Your task to perform on an android device: set an alarm Image 0: 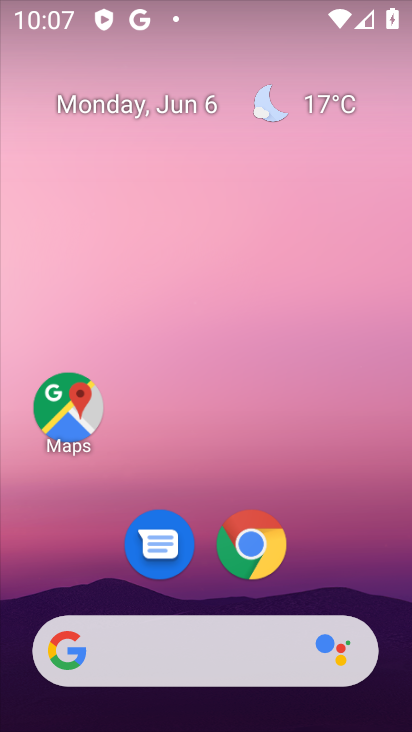
Step 0: drag from (100, 549) to (195, 115)
Your task to perform on an android device: set an alarm Image 1: 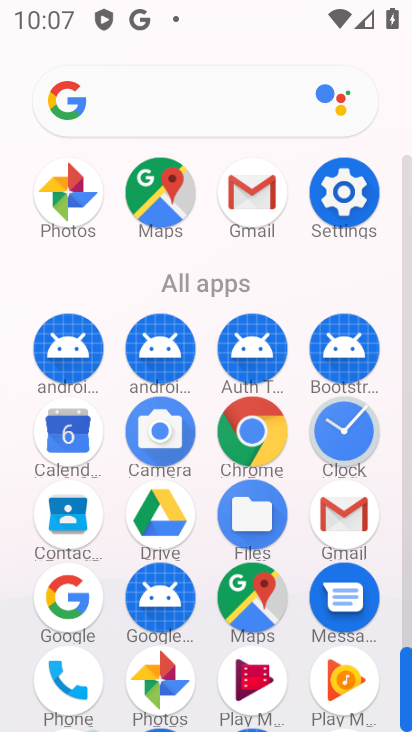
Step 1: click (347, 438)
Your task to perform on an android device: set an alarm Image 2: 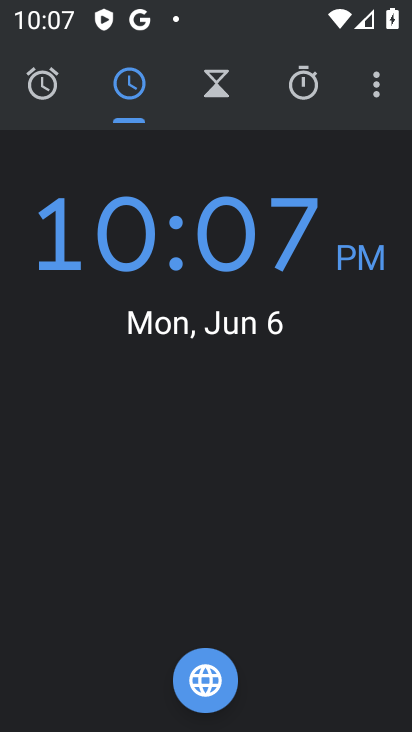
Step 2: click (46, 98)
Your task to perform on an android device: set an alarm Image 3: 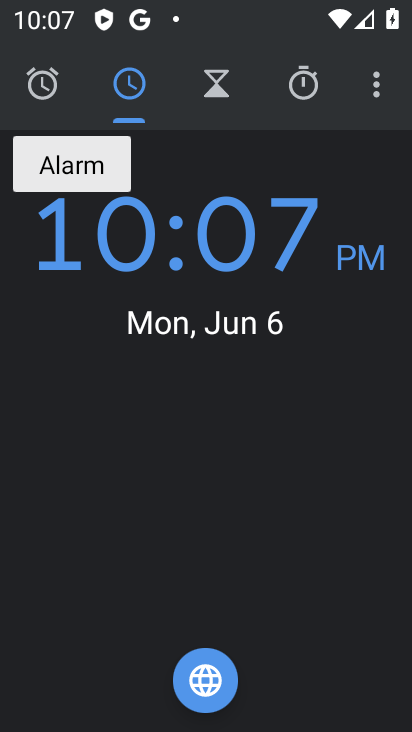
Step 3: click (46, 97)
Your task to perform on an android device: set an alarm Image 4: 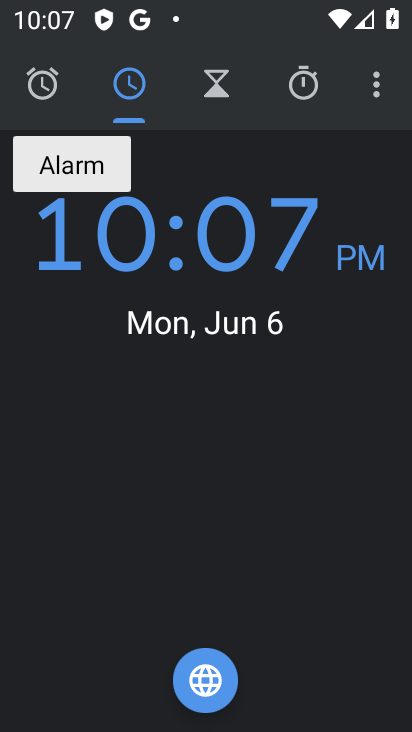
Step 4: click (50, 86)
Your task to perform on an android device: set an alarm Image 5: 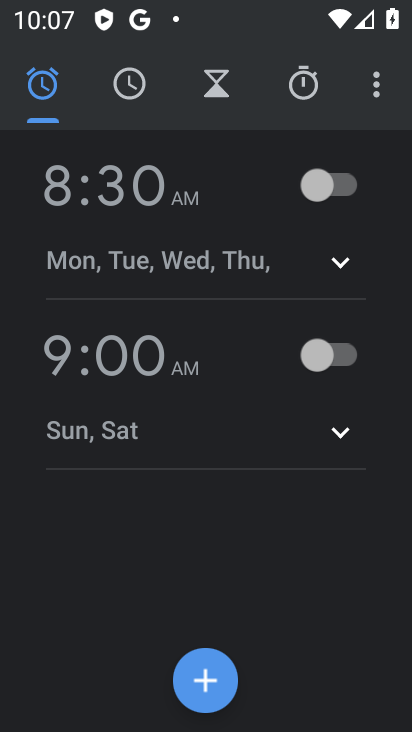
Step 5: click (219, 674)
Your task to perform on an android device: set an alarm Image 6: 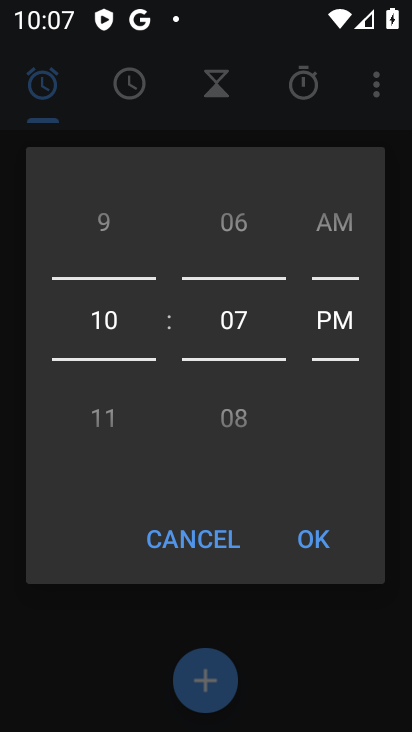
Step 6: drag from (96, 398) to (121, 229)
Your task to perform on an android device: set an alarm Image 7: 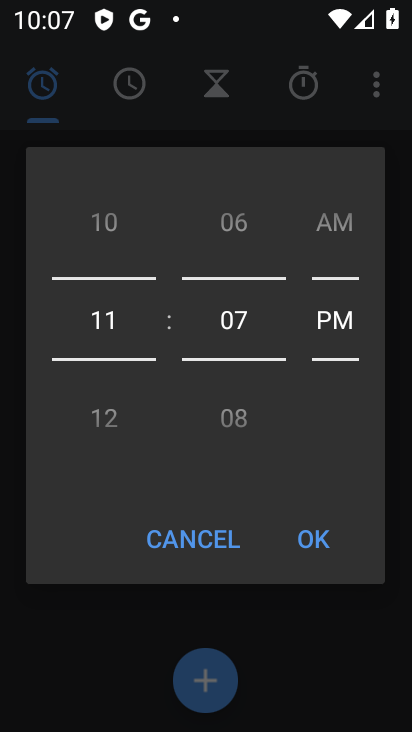
Step 7: drag from (205, 405) to (272, 190)
Your task to perform on an android device: set an alarm Image 8: 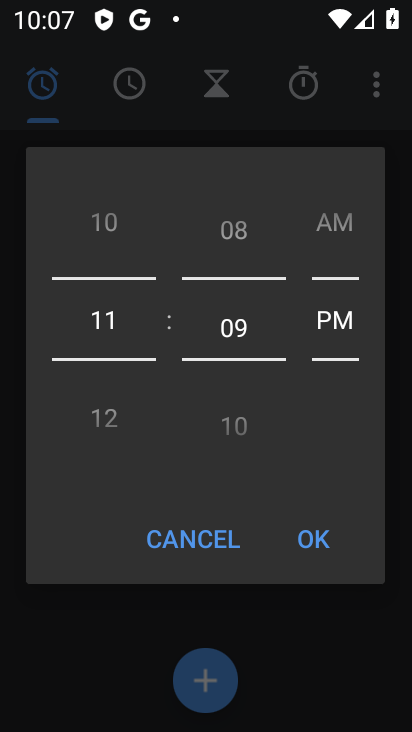
Step 8: drag from (245, 405) to (323, 140)
Your task to perform on an android device: set an alarm Image 9: 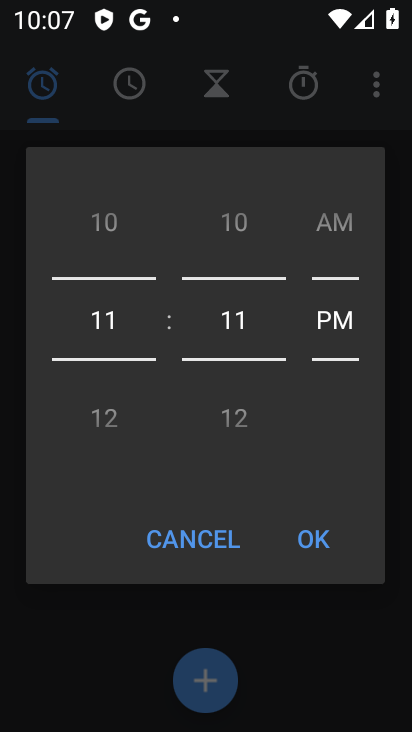
Step 9: drag from (338, 326) to (340, 499)
Your task to perform on an android device: set an alarm Image 10: 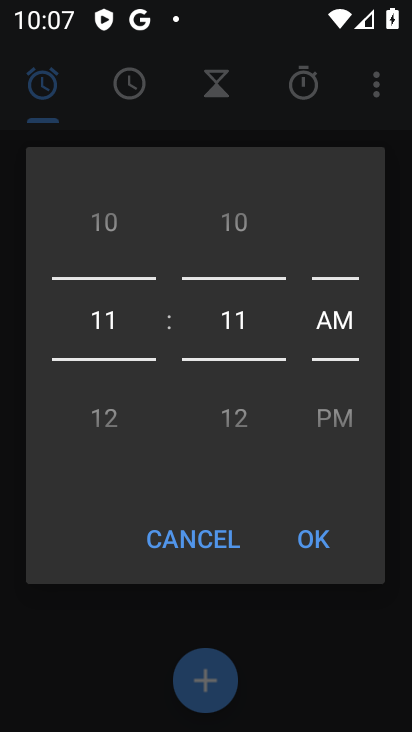
Step 10: click (330, 538)
Your task to perform on an android device: set an alarm Image 11: 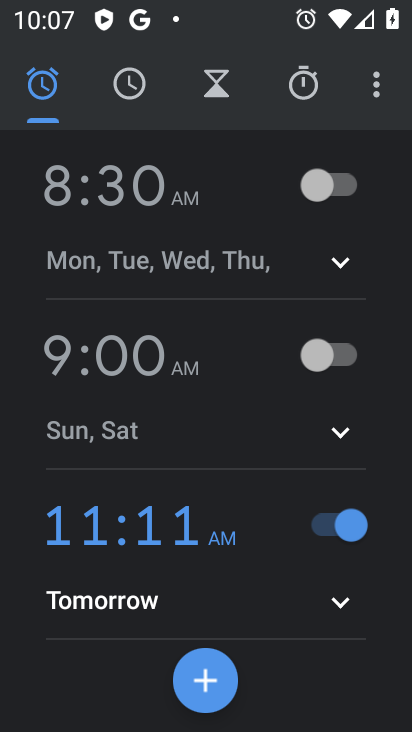
Step 11: task complete